Your task to perform on an android device: Is it going to rain today? Image 0: 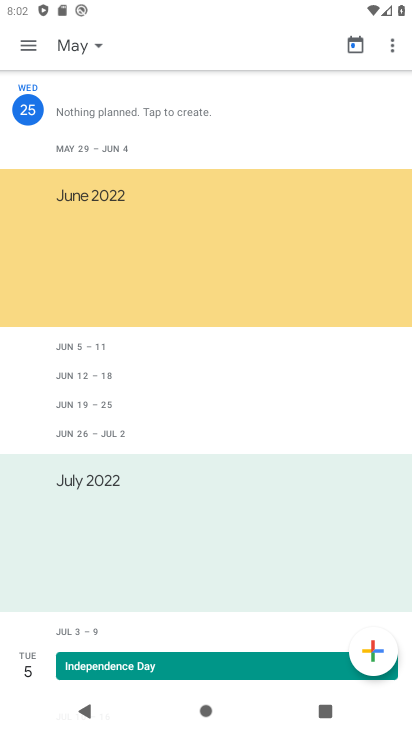
Step 0: press home button
Your task to perform on an android device: Is it going to rain today? Image 1: 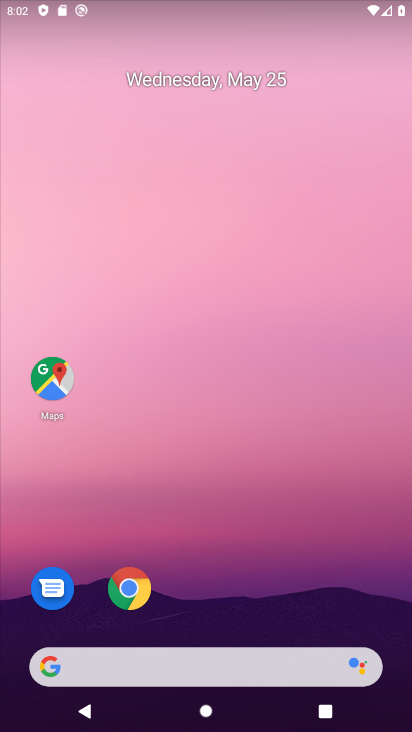
Step 1: click (105, 664)
Your task to perform on an android device: Is it going to rain today? Image 2: 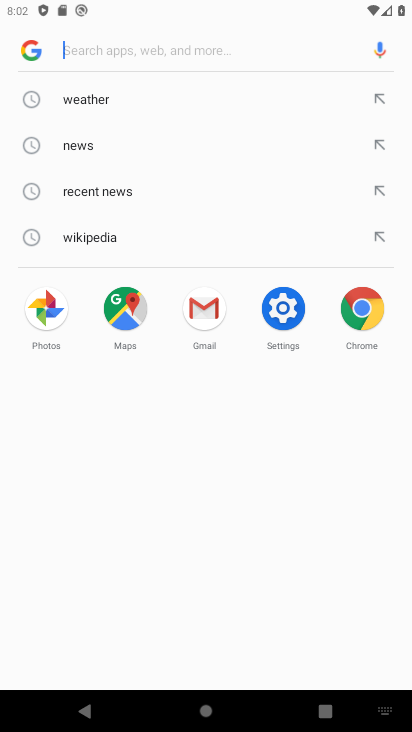
Step 2: click (119, 93)
Your task to perform on an android device: Is it going to rain today? Image 3: 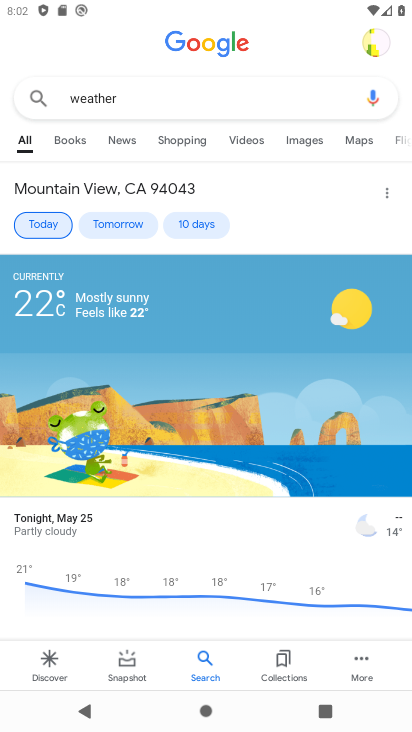
Step 3: task complete